Your task to perform on an android device: Search for Italian restaurants on Maps Image 0: 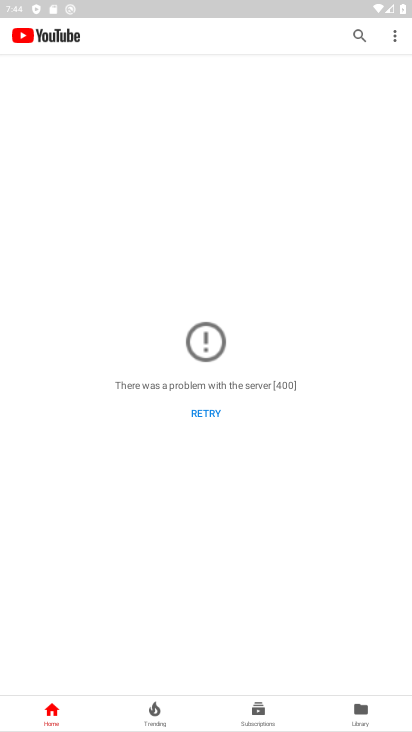
Step 0: press home button
Your task to perform on an android device: Search for Italian restaurants on Maps Image 1: 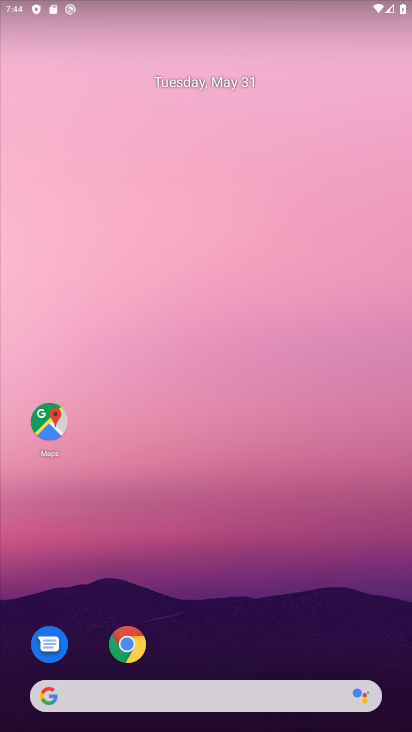
Step 1: click (50, 428)
Your task to perform on an android device: Search for Italian restaurants on Maps Image 2: 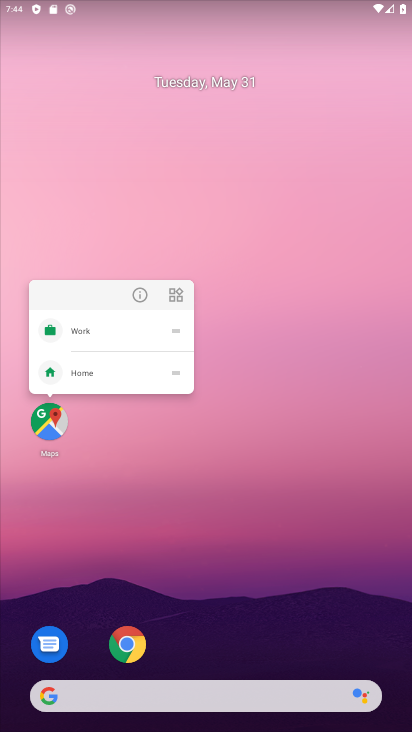
Step 2: click (50, 428)
Your task to perform on an android device: Search for Italian restaurants on Maps Image 3: 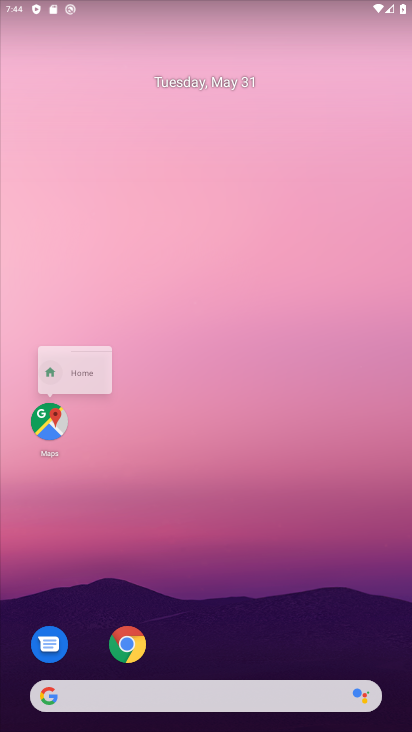
Step 3: click (50, 428)
Your task to perform on an android device: Search for Italian restaurants on Maps Image 4: 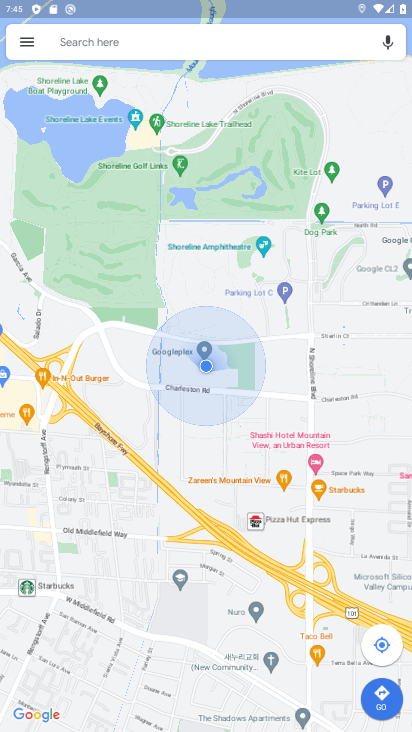
Step 4: click (124, 33)
Your task to perform on an android device: Search for Italian restaurants on Maps Image 5: 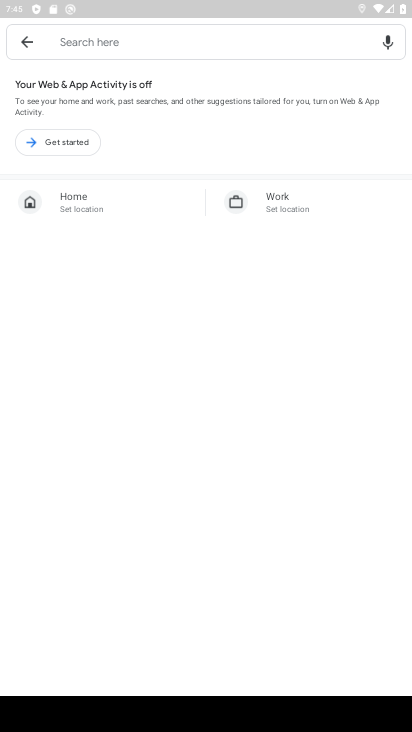
Step 5: type "italian"
Your task to perform on an android device: Search for Italian restaurants on Maps Image 6: 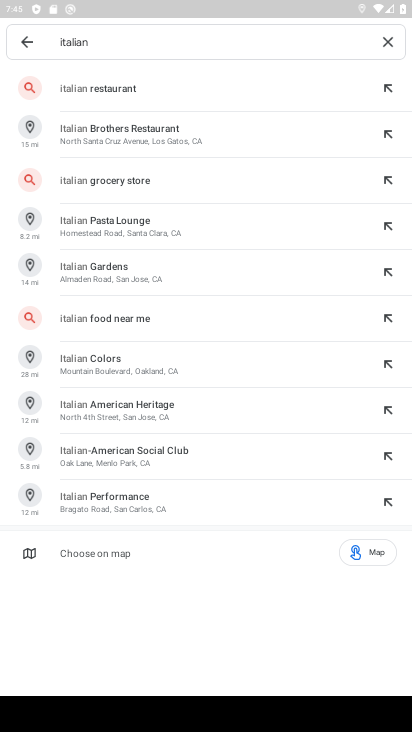
Step 6: click (213, 85)
Your task to perform on an android device: Search for Italian restaurants on Maps Image 7: 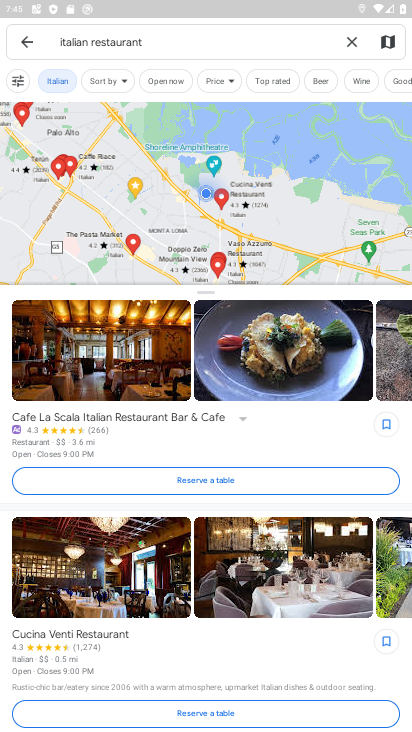
Step 7: task complete